Your task to perform on an android device: Open Google Chrome Image 0: 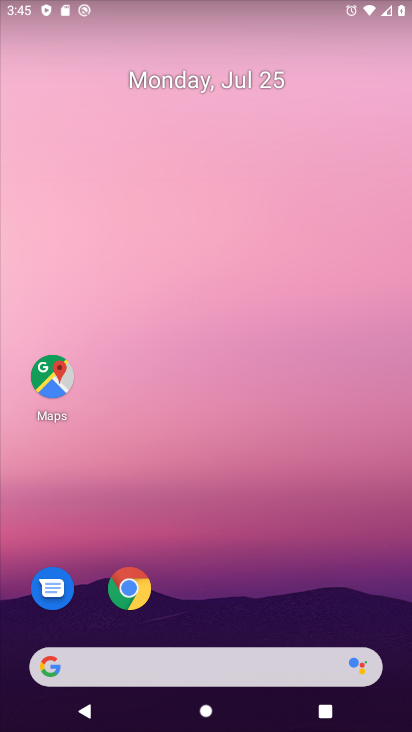
Step 0: drag from (221, 682) to (221, 43)
Your task to perform on an android device: Open Google Chrome Image 1: 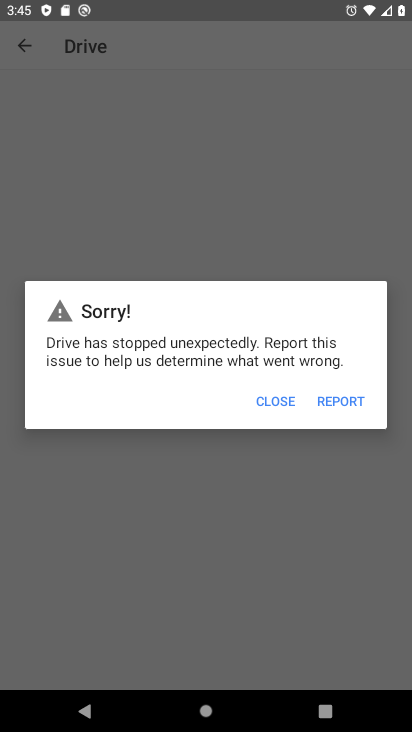
Step 1: press home button
Your task to perform on an android device: Open Google Chrome Image 2: 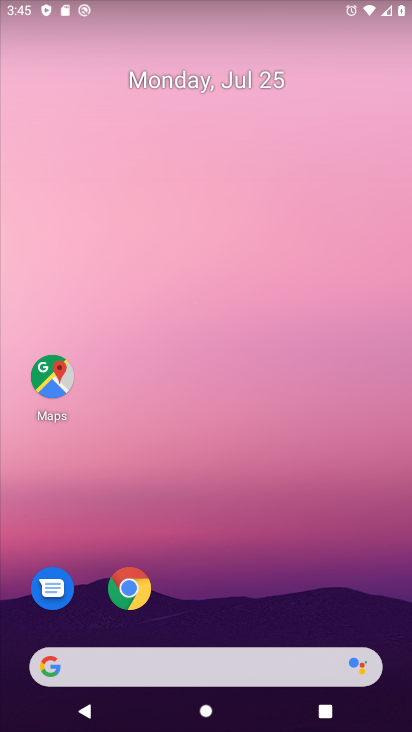
Step 2: click (128, 589)
Your task to perform on an android device: Open Google Chrome Image 3: 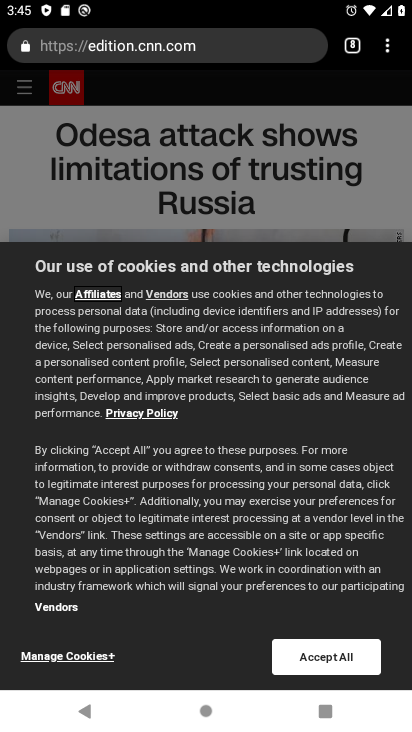
Step 3: click (389, 51)
Your task to perform on an android device: Open Google Chrome Image 4: 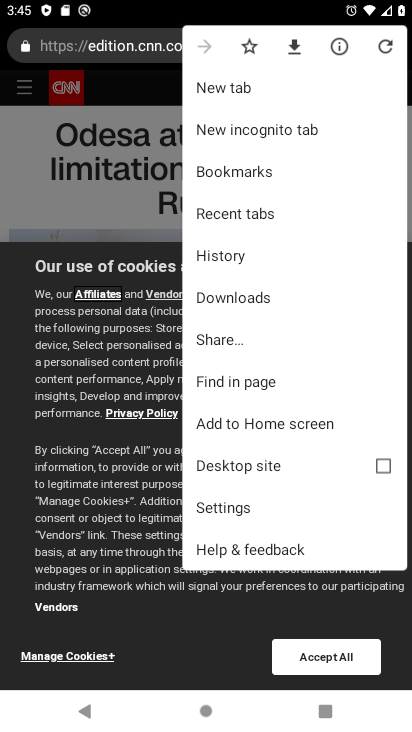
Step 4: click (95, 232)
Your task to perform on an android device: Open Google Chrome Image 5: 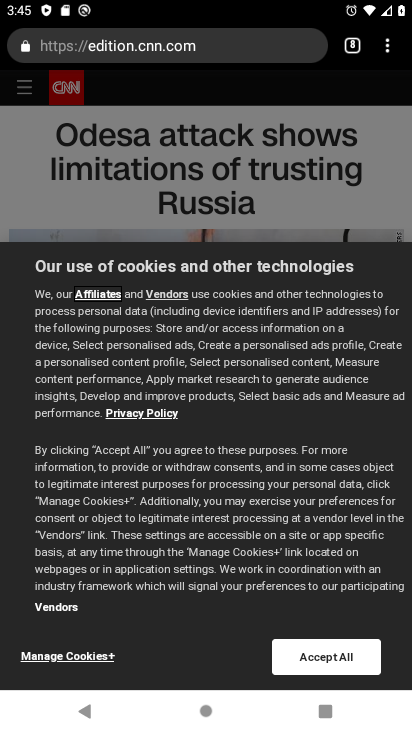
Step 5: task complete